Your task to perform on an android device: Open Yahoo.com Image 0: 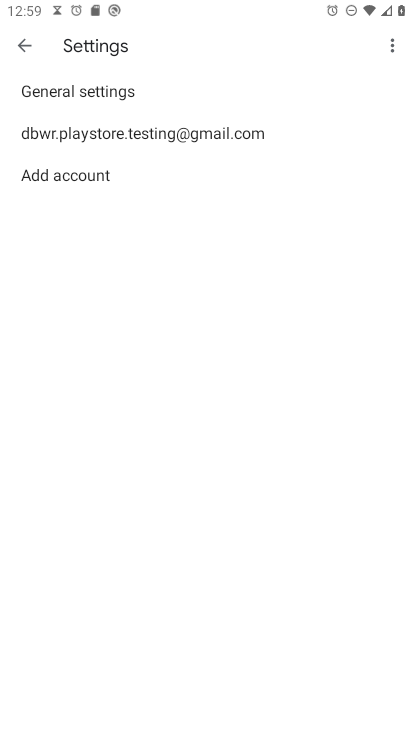
Step 0: press home button
Your task to perform on an android device: Open Yahoo.com Image 1: 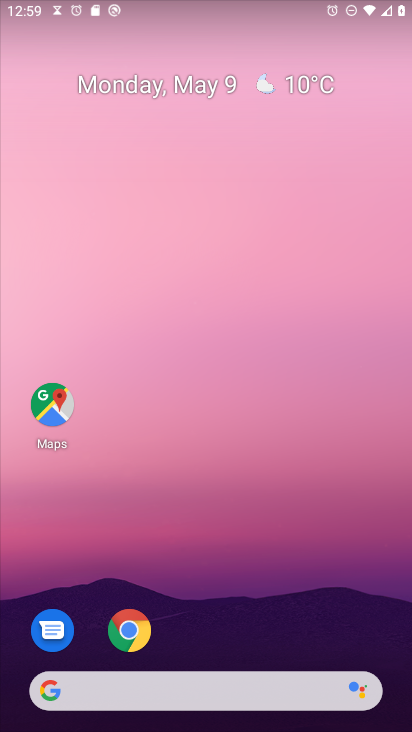
Step 1: drag from (251, 690) to (341, 27)
Your task to perform on an android device: Open Yahoo.com Image 2: 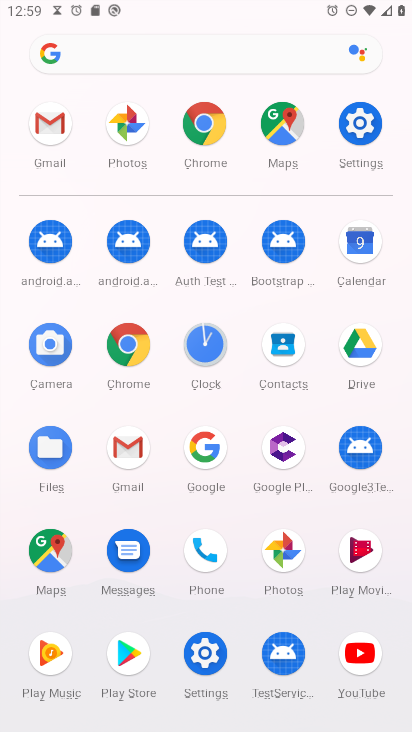
Step 2: click (206, 126)
Your task to perform on an android device: Open Yahoo.com Image 3: 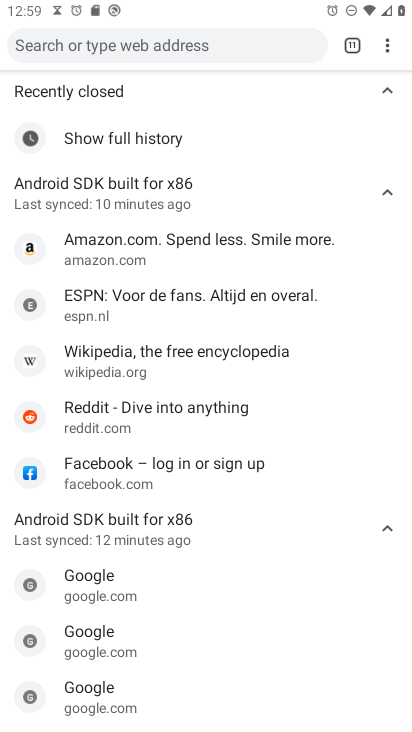
Step 3: drag from (387, 45) to (263, 95)
Your task to perform on an android device: Open Yahoo.com Image 4: 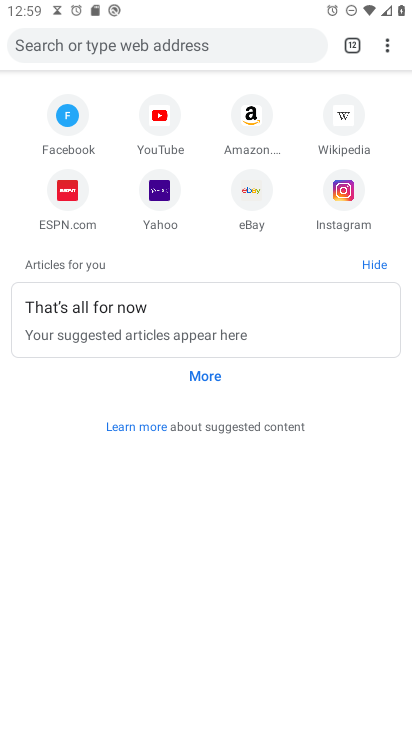
Step 4: click (163, 193)
Your task to perform on an android device: Open Yahoo.com Image 5: 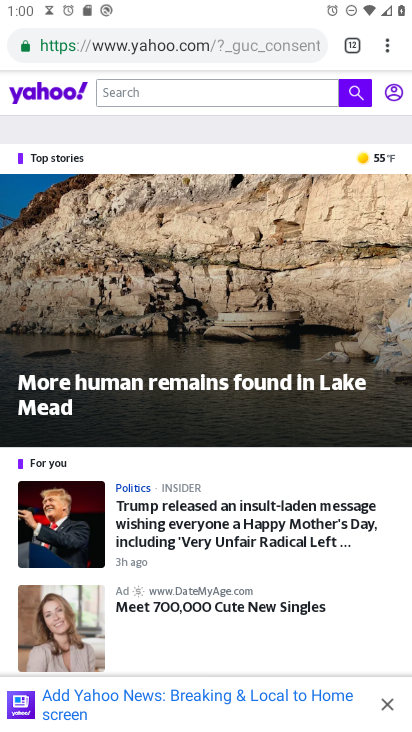
Step 5: task complete